Your task to perform on an android device: delete browsing data in the chrome app Image 0: 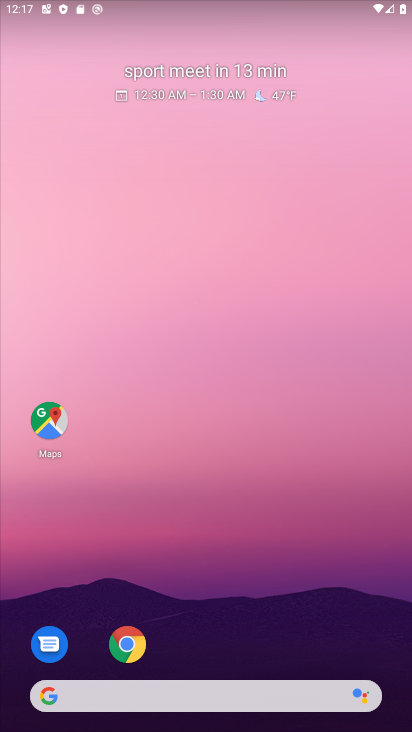
Step 0: click (139, 629)
Your task to perform on an android device: delete browsing data in the chrome app Image 1: 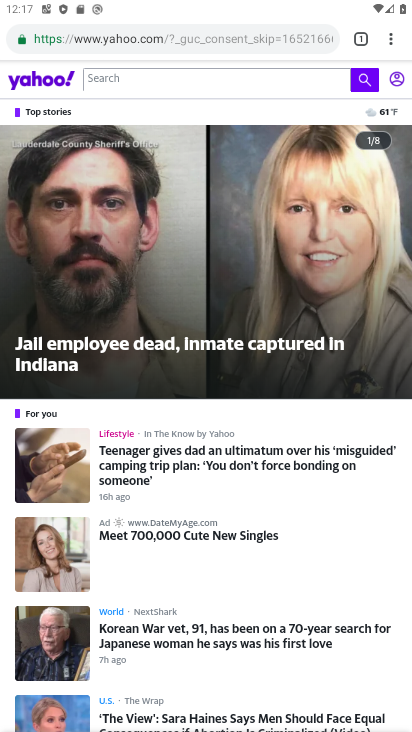
Step 1: drag from (394, 35) to (260, 209)
Your task to perform on an android device: delete browsing data in the chrome app Image 2: 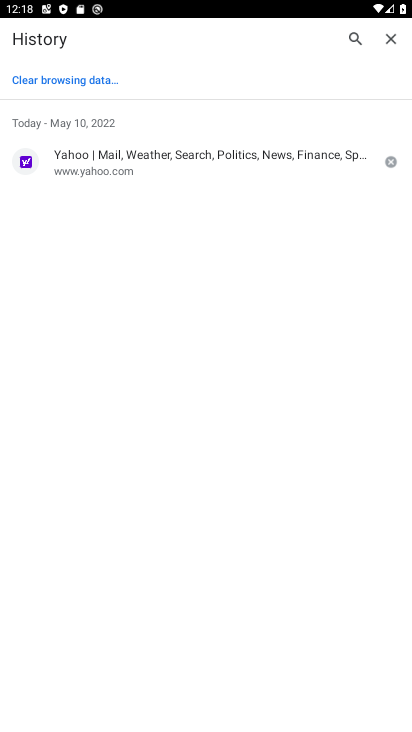
Step 2: click (68, 72)
Your task to perform on an android device: delete browsing data in the chrome app Image 3: 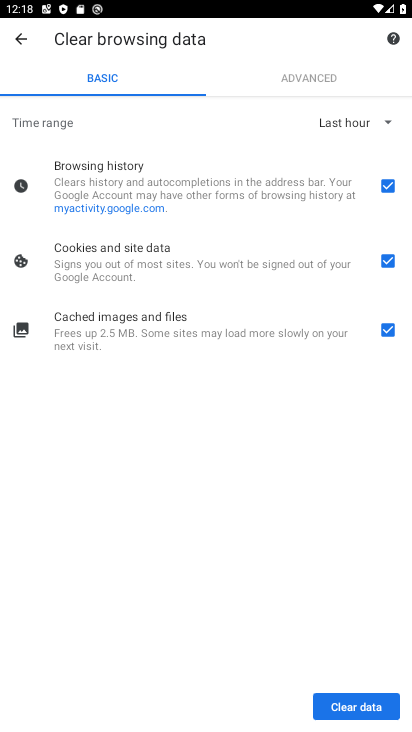
Step 3: click (358, 709)
Your task to perform on an android device: delete browsing data in the chrome app Image 4: 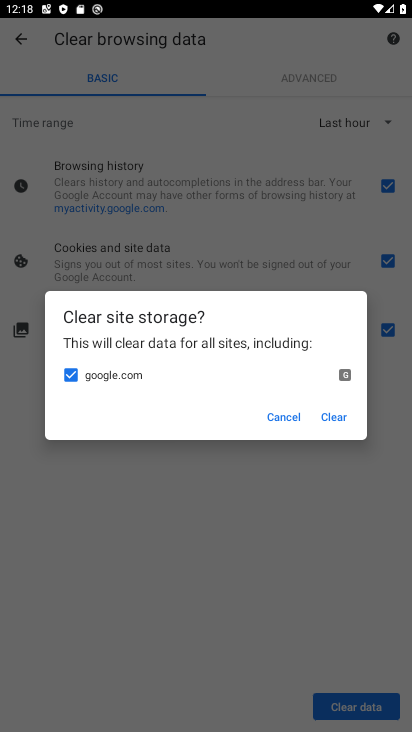
Step 4: click (322, 417)
Your task to perform on an android device: delete browsing data in the chrome app Image 5: 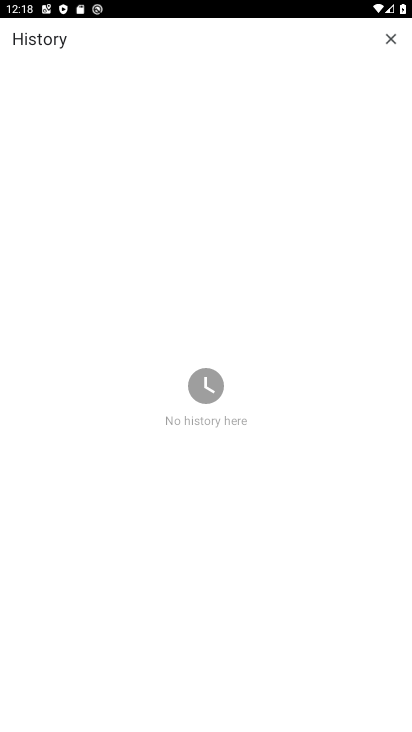
Step 5: task complete